Your task to perform on an android device: toggle wifi Image 0: 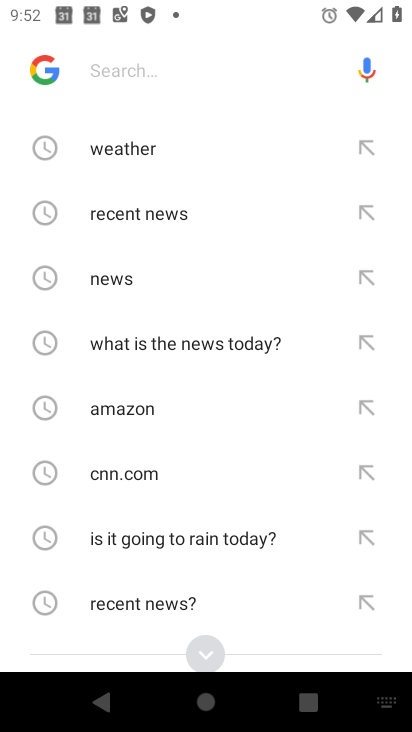
Step 0: press home button
Your task to perform on an android device: toggle wifi Image 1: 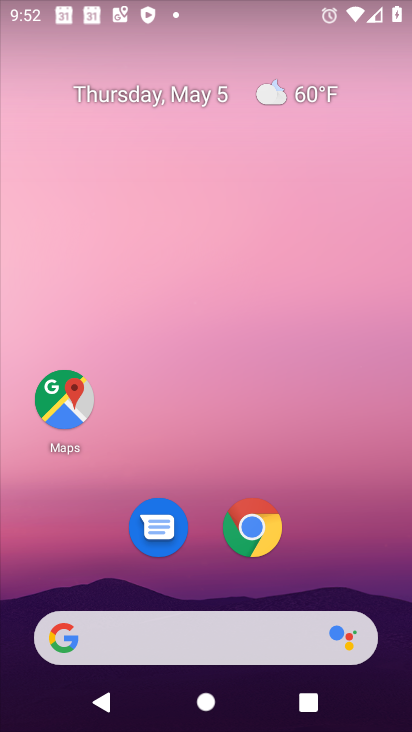
Step 1: drag from (260, 710) to (237, 178)
Your task to perform on an android device: toggle wifi Image 2: 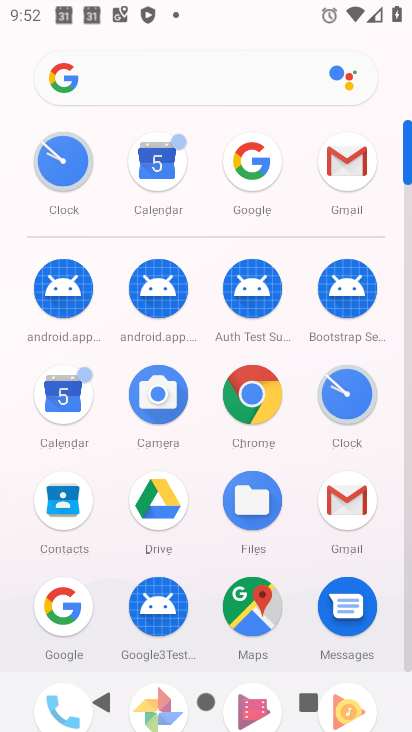
Step 2: drag from (265, 608) to (233, 211)
Your task to perform on an android device: toggle wifi Image 3: 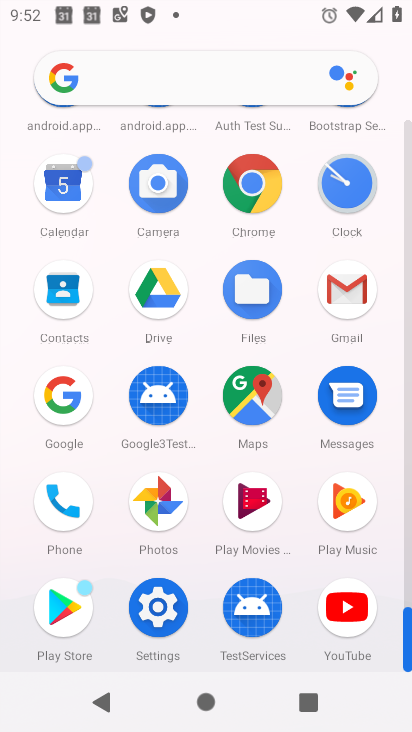
Step 3: click (163, 593)
Your task to perform on an android device: toggle wifi Image 4: 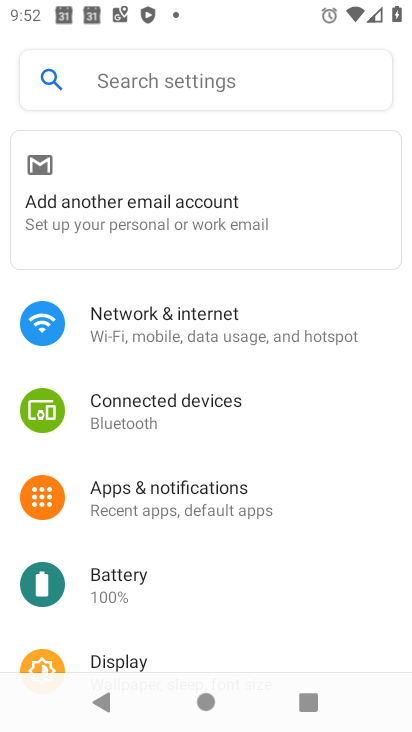
Step 4: click (272, 313)
Your task to perform on an android device: toggle wifi Image 5: 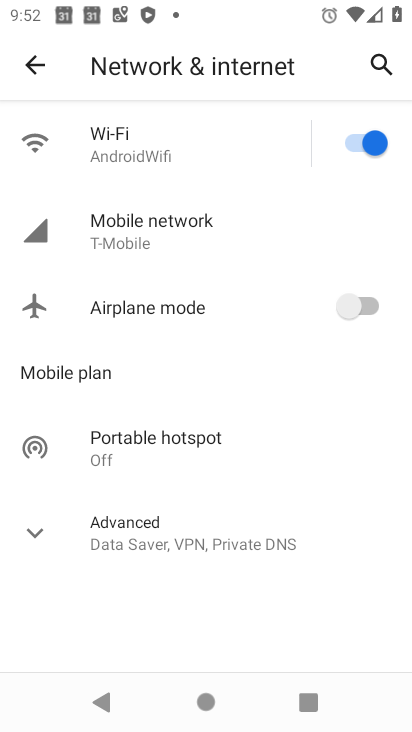
Step 5: click (374, 143)
Your task to perform on an android device: toggle wifi Image 6: 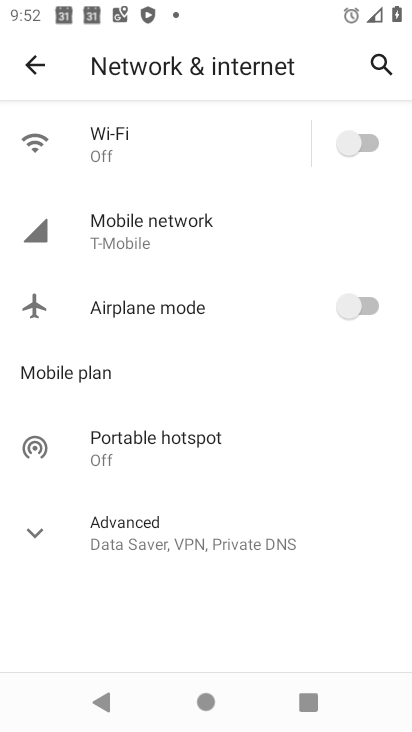
Step 6: task complete